Your task to perform on an android device: turn on airplane mode Image 0: 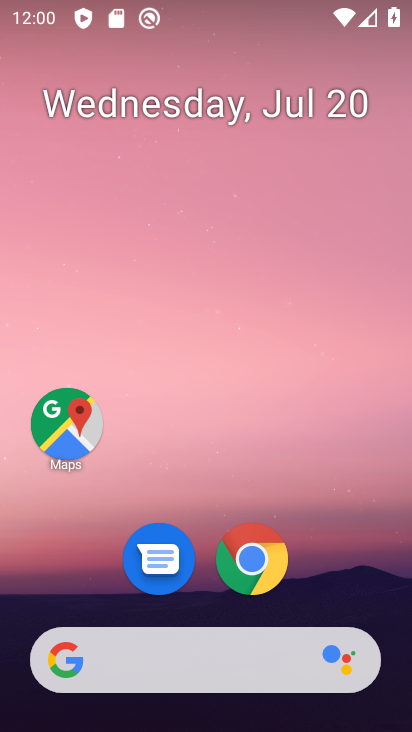
Step 0: drag from (333, 587) to (336, 107)
Your task to perform on an android device: turn on airplane mode Image 1: 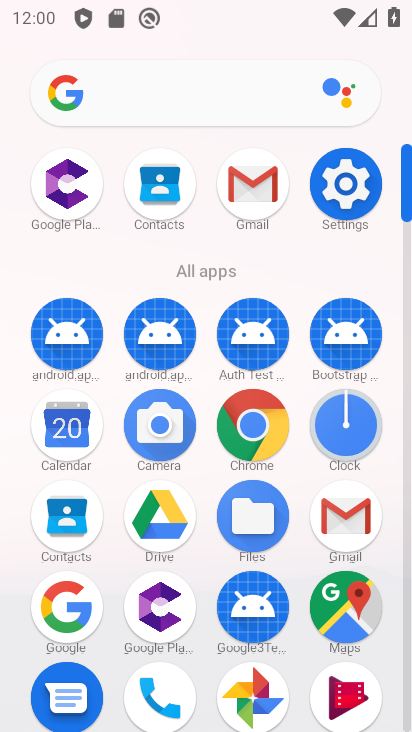
Step 1: click (349, 179)
Your task to perform on an android device: turn on airplane mode Image 2: 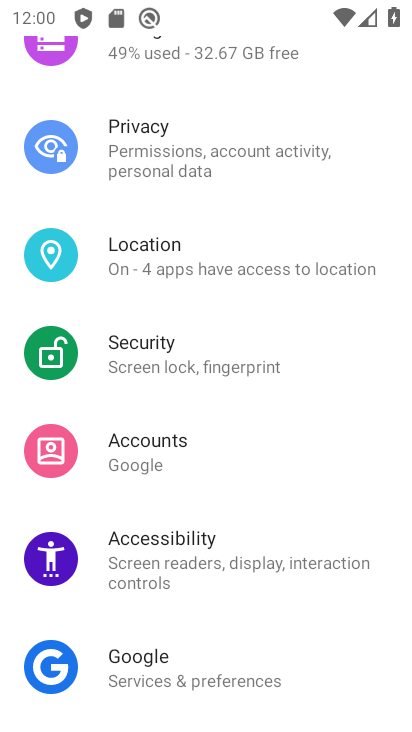
Step 2: drag from (349, 350) to (346, 413)
Your task to perform on an android device: turn on airplane mode Image 3: 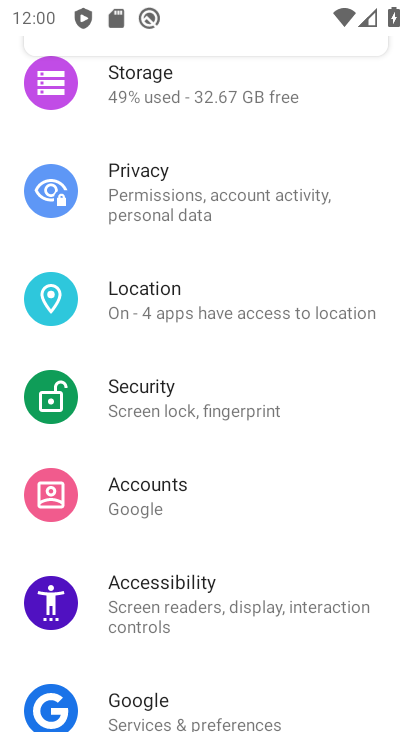
Step 3: drag from (357, 307) to (357, 401)
Your task to perform on an android device: turn on airplane mode Image 4: 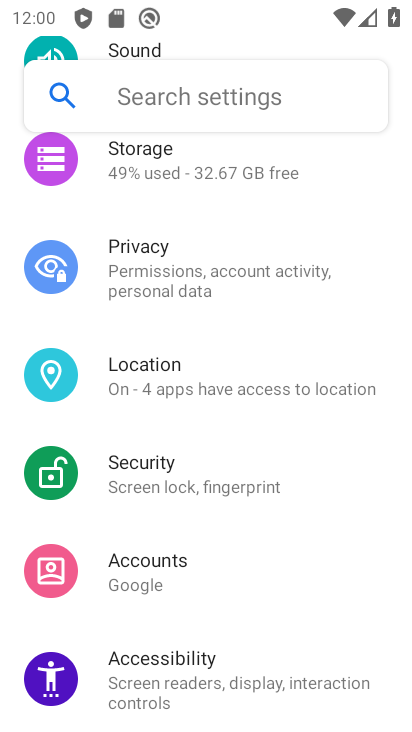
Step 4: drag from (370, 288) to (370, 425)
Your task to perform on an android device: turn on airplane mode Image 5: 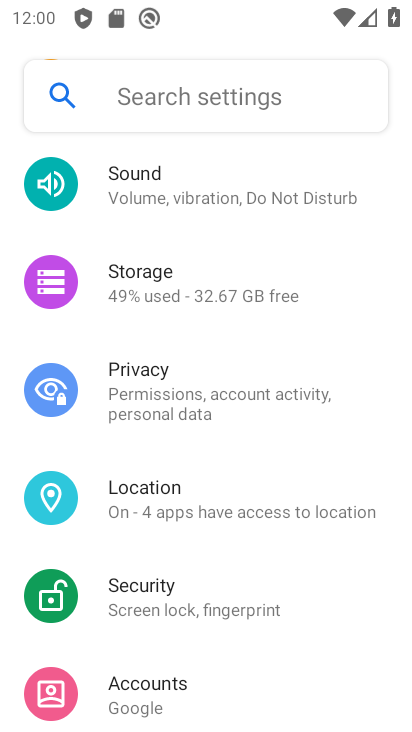
Step 5: drag from (364, 315) to (360, 408)
Your task to perform on an android device: turn on airplane mode Image 6: 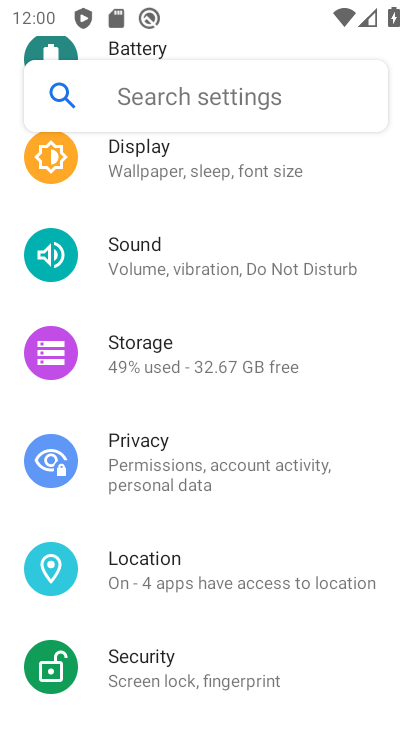
Step 6: drag from (367, 296) to (367, 396)
Your task to perform on an android device: turn on airplane mode Image 7: 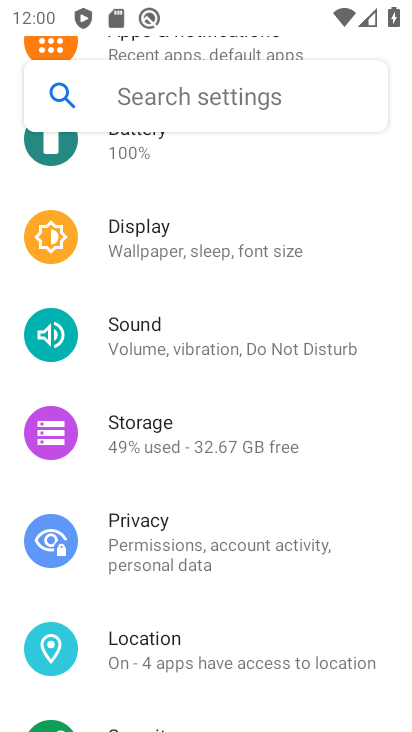
Step 7: drag from (367, 292) to (367, 394)
Your task to perform on an android device: turn on airplane mode Image 8: 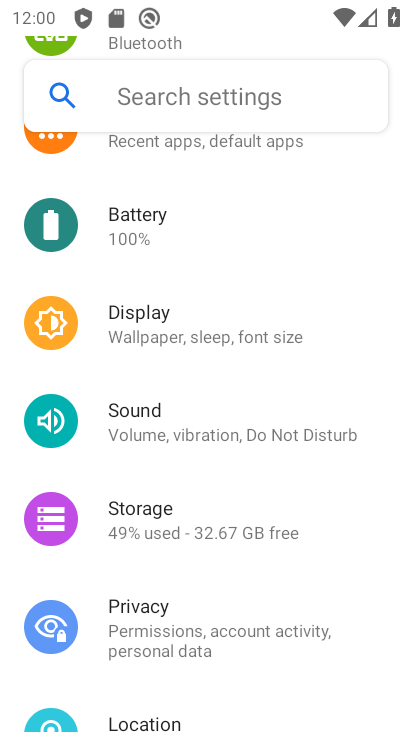
Step 8: drag from (365, 257) to (365, 355)
Your task to perform on an android device: turn on airplane mode Image 9: 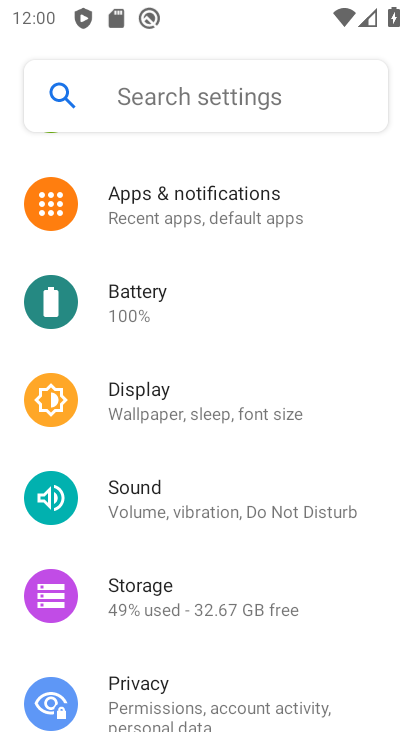
Step 9: drag from (351, 210) to (350, 361)
Your task to perform on an android device: turn on airplane mode Image 10: 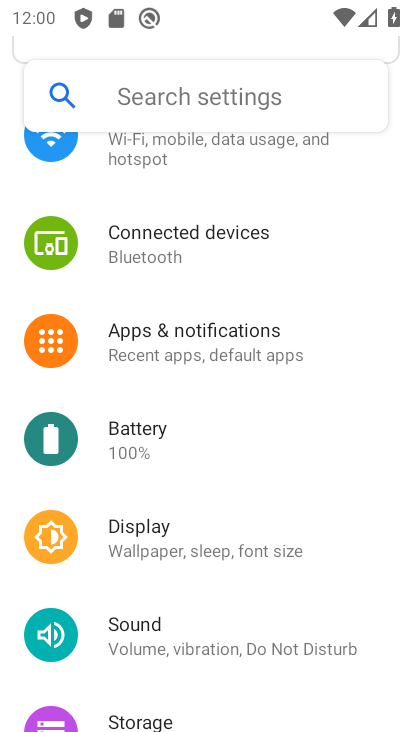
Step 10: drag from (350, 219) to (351, 355)
Your task to perform on an android device: turn on airplane mode Image 11: 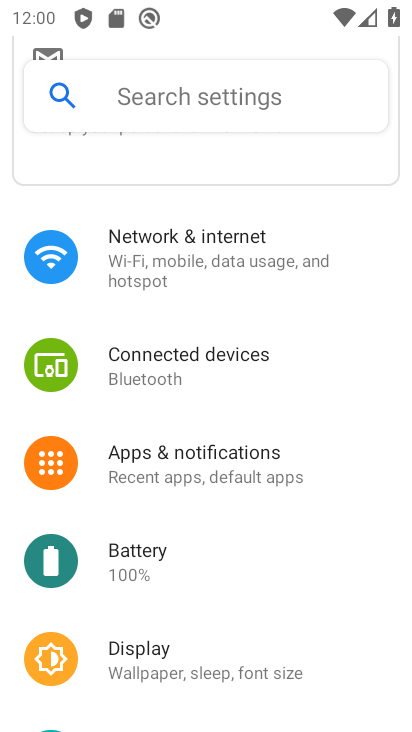
Step 11: drag from (342, 225) to (348, 363)
Your task to perform on an android device: turn on airplane mode Image 12: 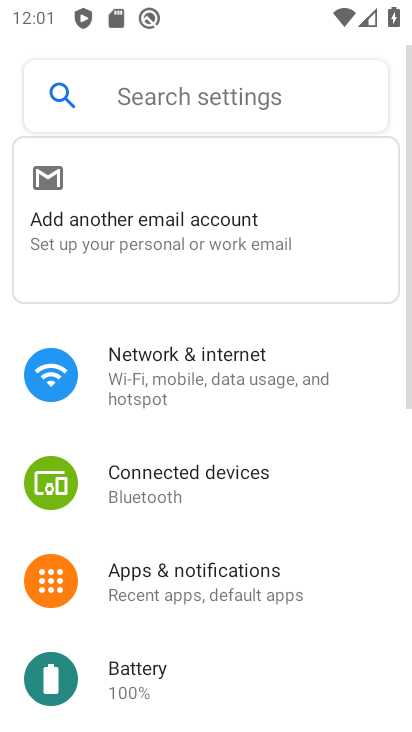
Step 12: click (348, 363)
Your task to perform on an android device: turn on airplane mode Image 13: 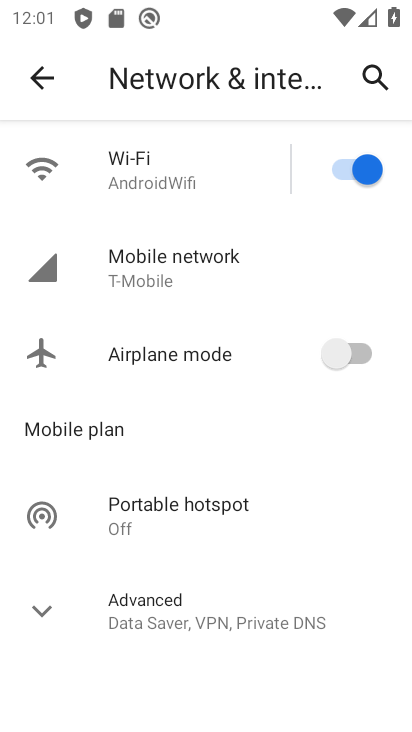
Step 13: click (348, 363)
Your task to perform on an android device: turn on airplane mode Image 14: 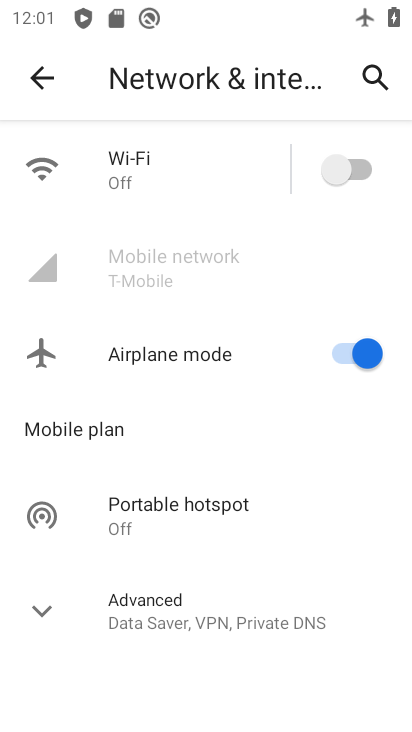
Step 14: task complete